Your task to perform on an android device: change notification settings in the gmail app Image 0: 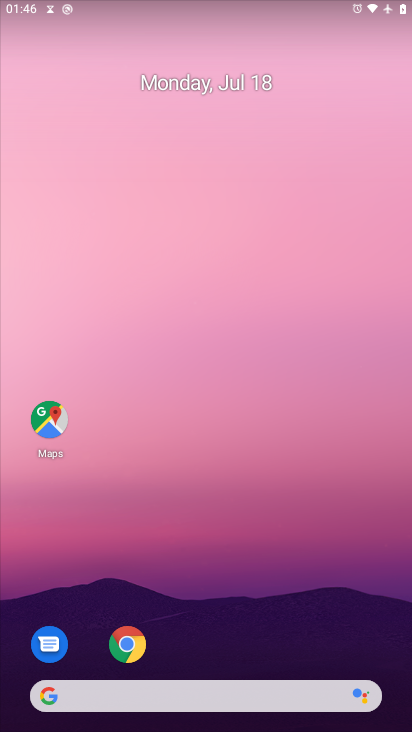
Step 0: press home button
Your task to perform on an android device: change notification settings in the gmail app Image 1: 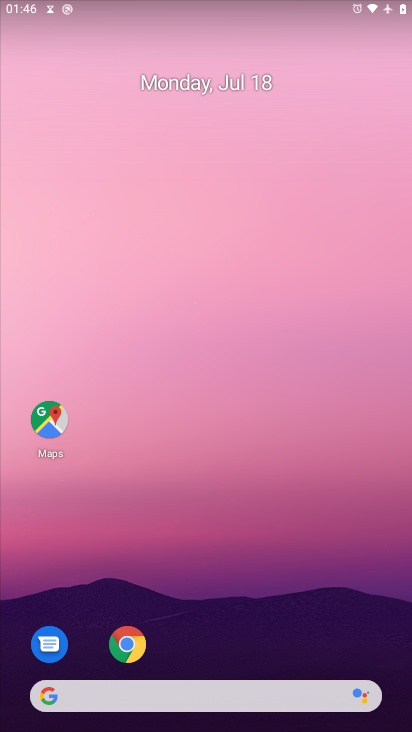
Step 1: drag from (274, 661) to (249, 53)
Your task to perform on an android device: change notification settings in the gmail app Image 2: 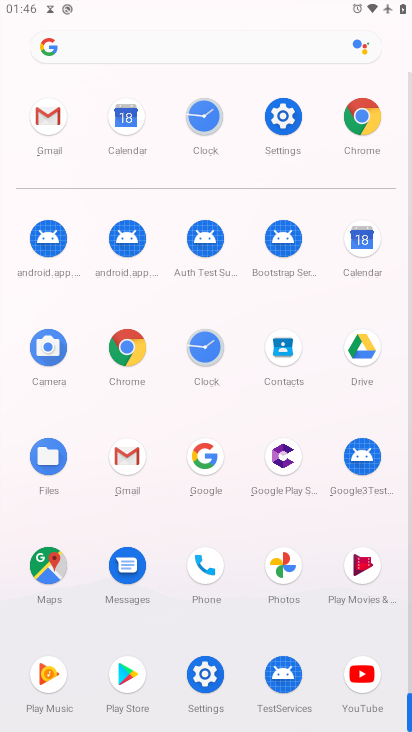
Step 2: click (46, 114)
Your task to perform on an android device: change notification settings in the gmail app Image 3: 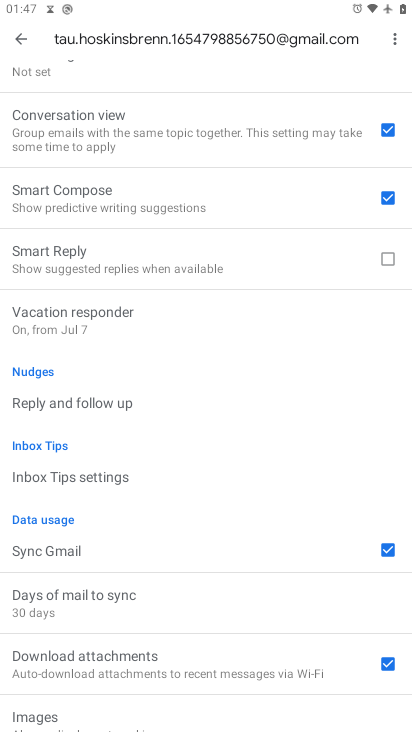
Step 3: drag from (194, 170) to (245, 575)
Your task to perform on an android device: change notification settings in the gmail app Image 4: 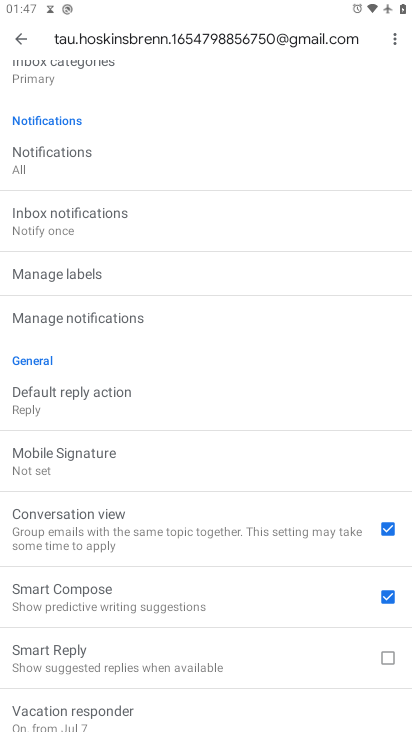
Step 4: click (85, 319)
Your task to perform on an android device: change notification settings in the gmail app Image 5: 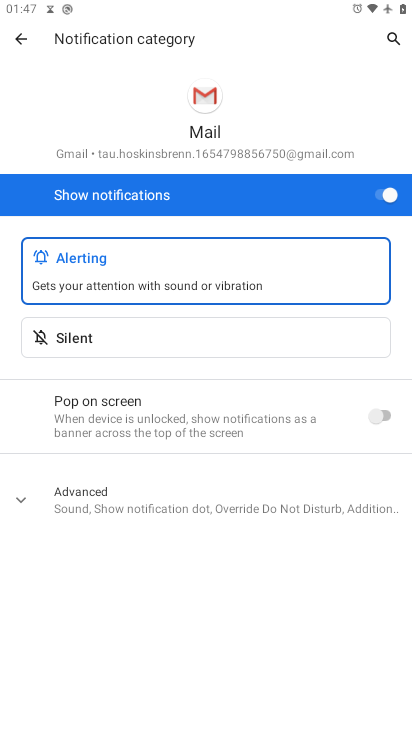
Step 5: click (391, 197)
Your task to perform on an android device: change notification settings in the gmail app Image 6: 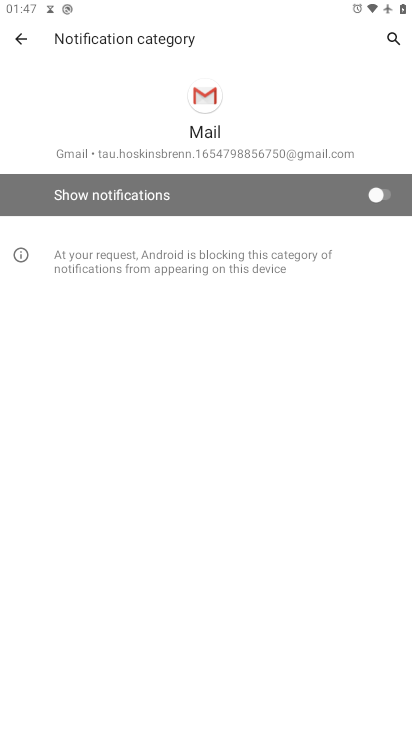
Step 6: task complete